Your task to perform on an android device: Search for hotels in Seattle Image 0: 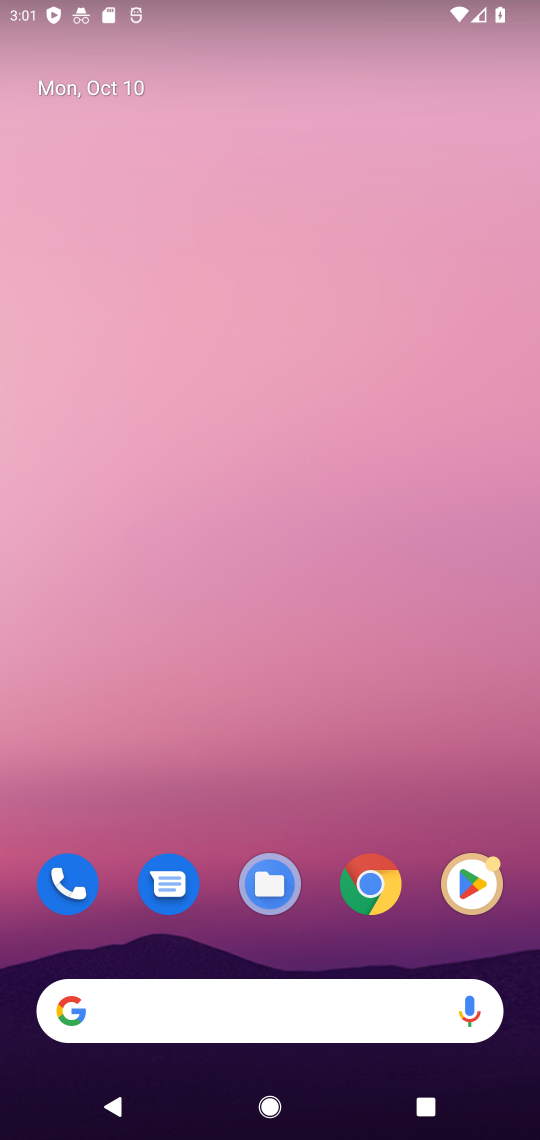
Step 0: click (305, 1003)
Your task to perform on an android device: Search for hotels in Seattle Image 1: 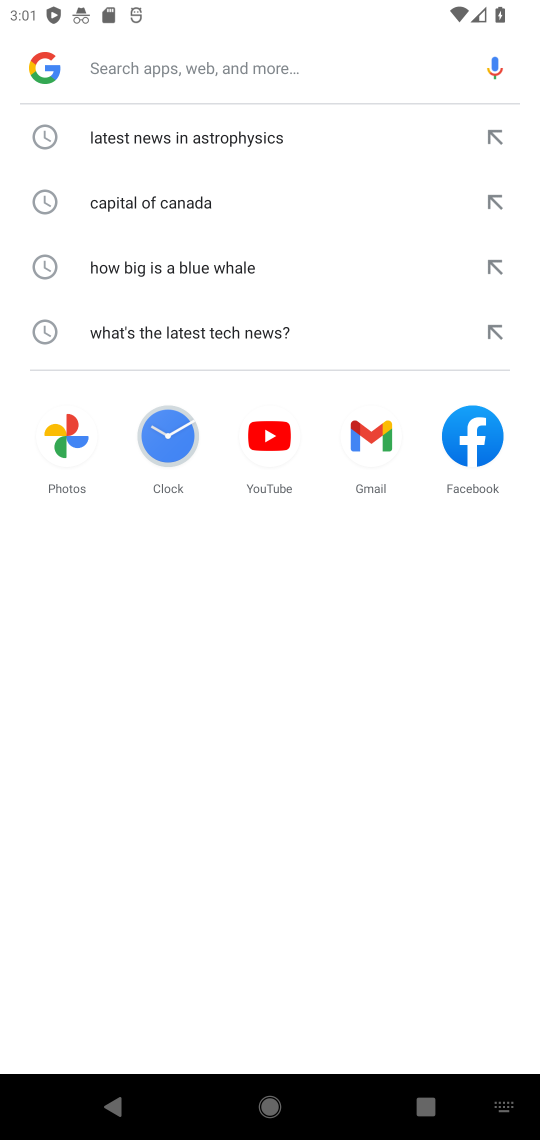
Step 1: type "hotels in Seattle"
Your task to perform on an android device: Search for hotels in Seattle Image 2: 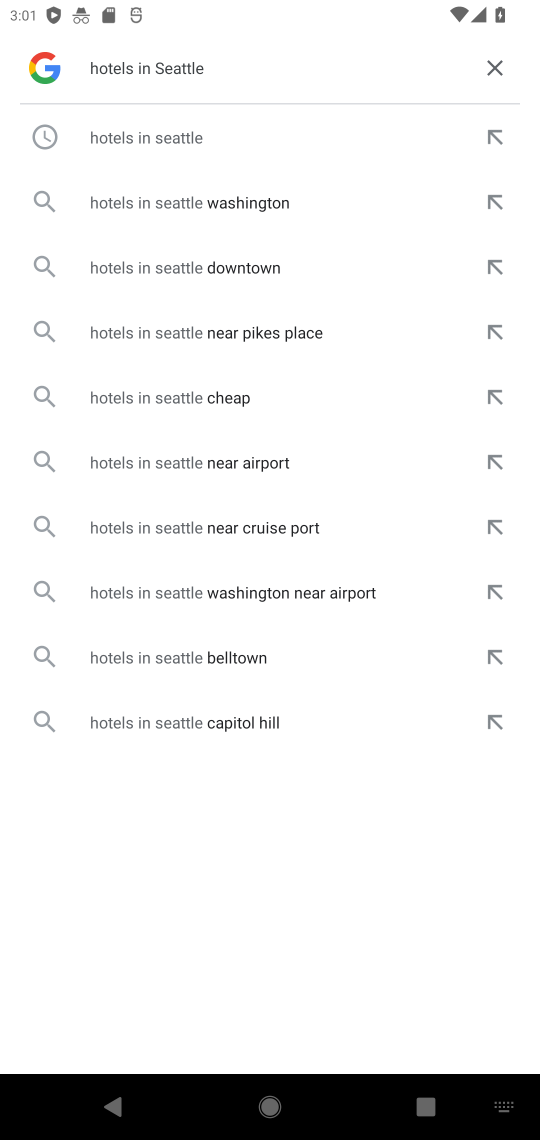
Step 2: click (160, 136)
Your task to perform on an android device: Search for hotels in Seattle Image 3: 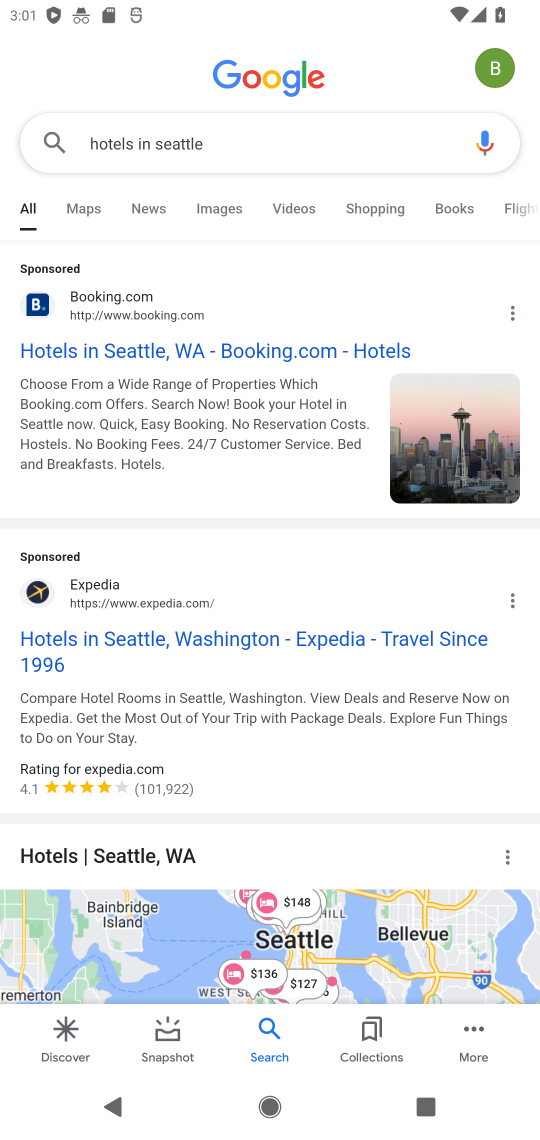
Step 3: click (207, 345)
Your task to perform on an android device: Search for hotels in Seattle Image 4: 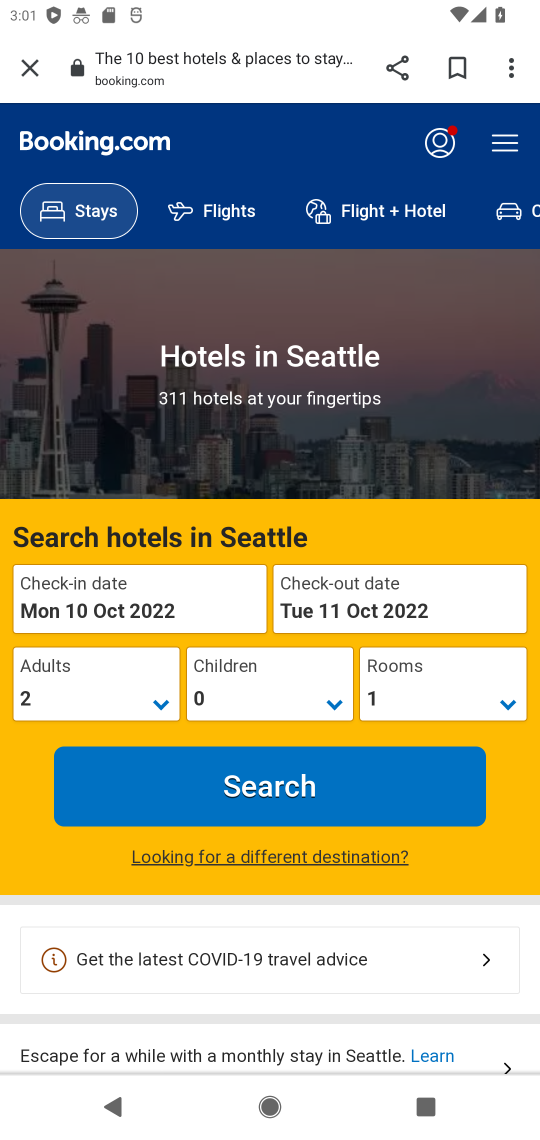
Step 4: click (296, 786)
Your task to perform on an android device: Search for hotels in Seattle Image 5: 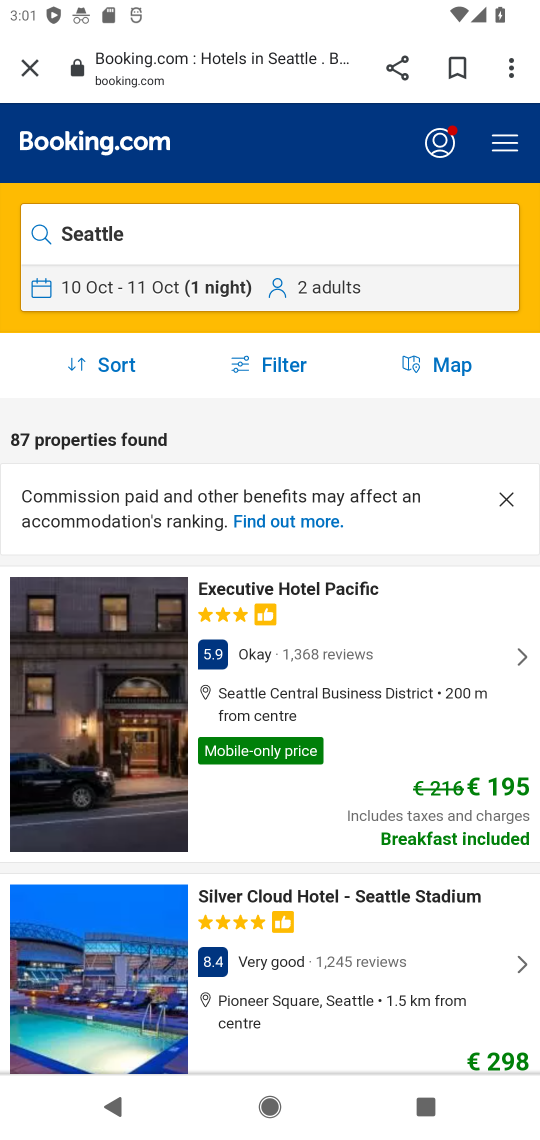
Step 5: task complete